Your task to perform on an android device: Clear the shopping cart on amazon.com. Search for "panasonic triple a" on amazon.com, select the first entry, add it to the cart, then select checkout. Image 0: 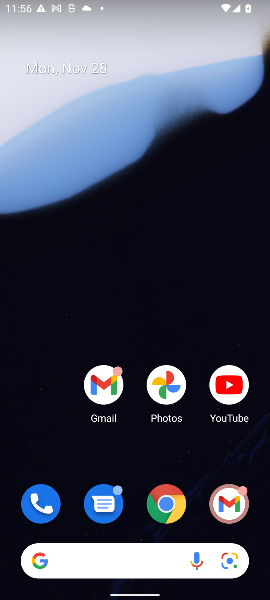
Step 0: click (167, 505)
Your task to perform on an android device: Clear the shopping cart on amazon.com. Search for "panasonic triple a" on amazon.com, select the first entry, add it to the cart, then select checkout. Image 1: 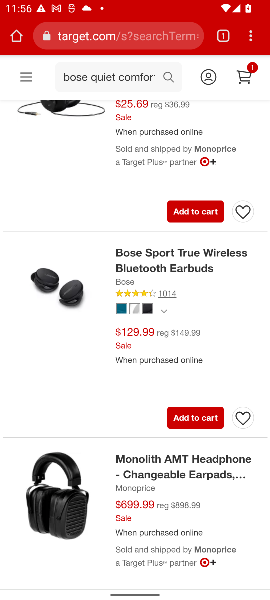
Step 1: click (97, 37)
Your task to perform on an android device: Clear the shopping cart on amazon.com. Search for "panasonic triple a" on amazon.com, select the first entry, add it to the cart, then select checkout. Image 2: 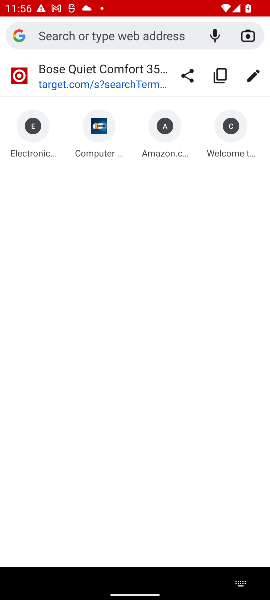
Step 2: click (146, 147)
Your task to perform on an android device: Clear the shopping cart on amazon.com. Search for "panasonic triple a" on amazon.com, select the first entry, add it to the cart, then select checkout. Image 3: 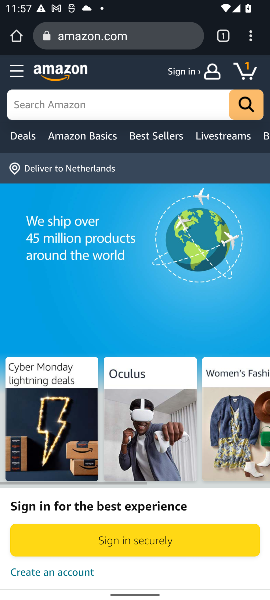
Step 3: click (243, 71)
Your task to perform on an android device: Clear the shopping cart on amazon.com. Search for "panasonic triple a" on amazon.com, select the first entry, add it to the cart, then select checkout. Image 4: 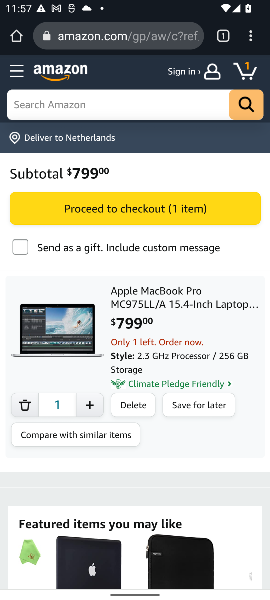
Step 4: click (130, 410)
Your task to perform on an android device: Clear the shopping cart on amazon.com. Search for "panasonic triple a" on amazon.com, select the first entry, add it to the cart, then select checkout. Image 5: 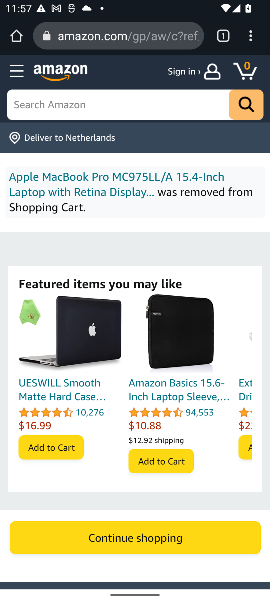
Step 5: click (71, 112)
Your task to perform on an android device: Clear the shopping cart on amazon.com. Search for "panasonic triple a" on amazon.com, select the first entry, add it to the cart, then select checkout. Image 6: 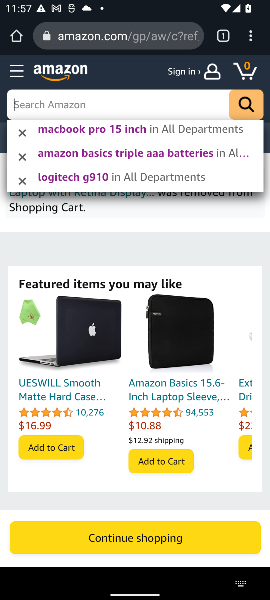
Step 6: type "panasonic triple a"
Your task to perform on an android device: Clear the shopping cart on amazon.com. Search for "panasonic triple a" on amazon.com, select the first entry, add it to the cart, then select checkout. Image 7: 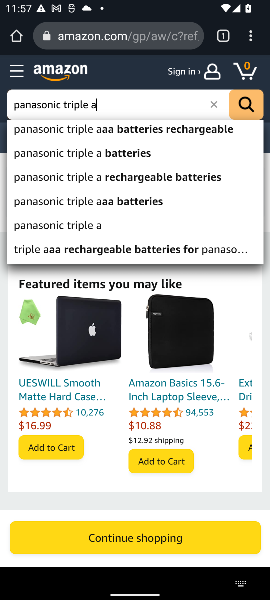
Step 7: click (71, 156)
Your task to perform on an android device: Clear the shopping cart on amazon.com. Search for "panasonic triple a" on amazon.com, select the first entry, add it to the cart, then select checkout. Image 8: 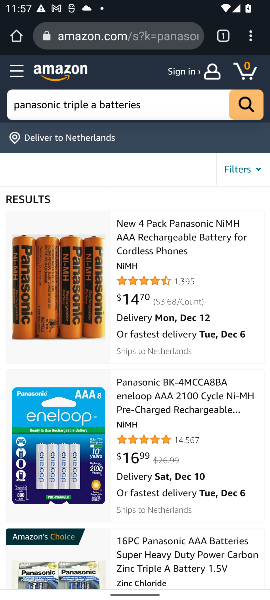
Step 8: click (61, 288)
Your task to perform on an android device: Clear the shopping cart on amazon.com. Search for "panasonic triple a" on amazon.com, select the first entry, add it to the cart, then select checkout. Image 9: 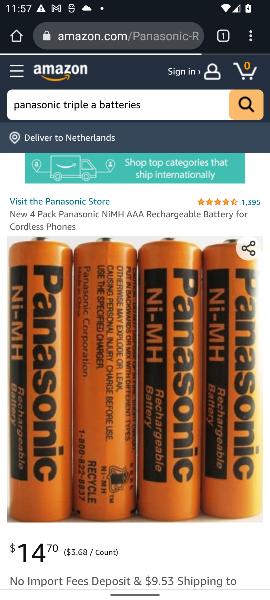
Step 9: drag from (126, 440) to (98, 131)
Your task to perform on an android device: Clear the shopping cart on amazon.com. Search for "panasonic triple a" on amazon.com, select the first entry, add it to the cart, then select checkout. Image 10: 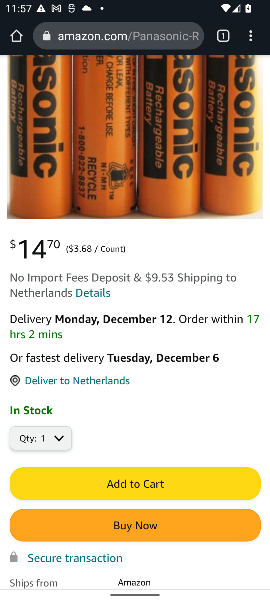
Step 10: click (118, 482)
Your task to perform on an android device: Clear the shopping cart on amazon.com. Search for "panasonic triple a" on amazon.com, select the first entry, add it to the cart, then select checkout. Image 11: 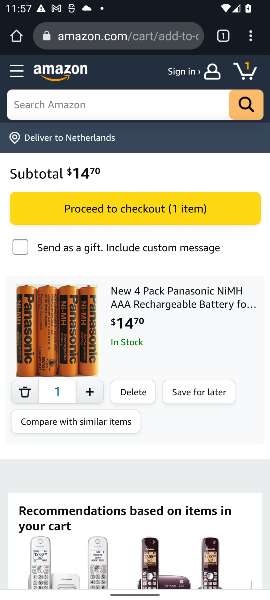
Step 11: click (130, 209)
Your task to perform on an android device: Clear the shopping cart on amazon.com. Search for "panasonic triple a" on amazon.com, select the first entry, add it to the cart, then select checkout. Image 12: 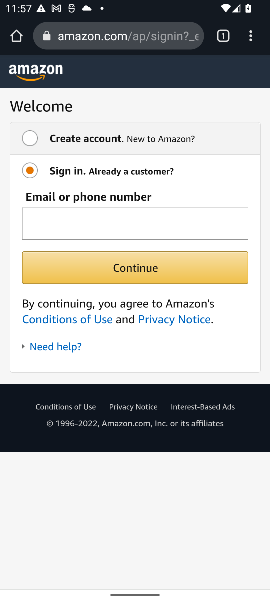
Step 12: task complete